Your task to perform on an android device: Go to Google maps Image 0: 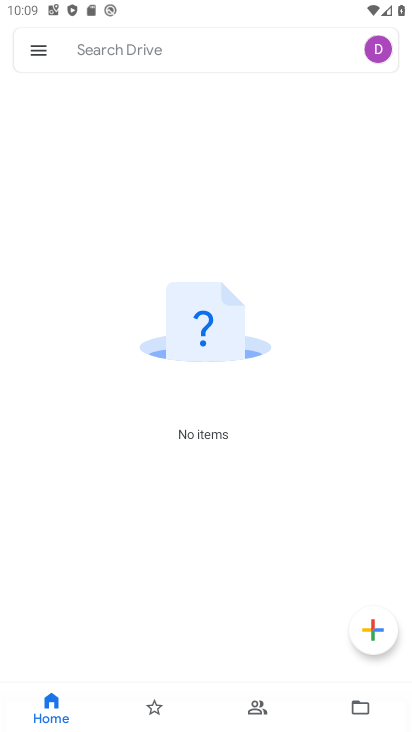
Step 0: press home button
Your task to perform on an android device: Go to Google maps Image 1: 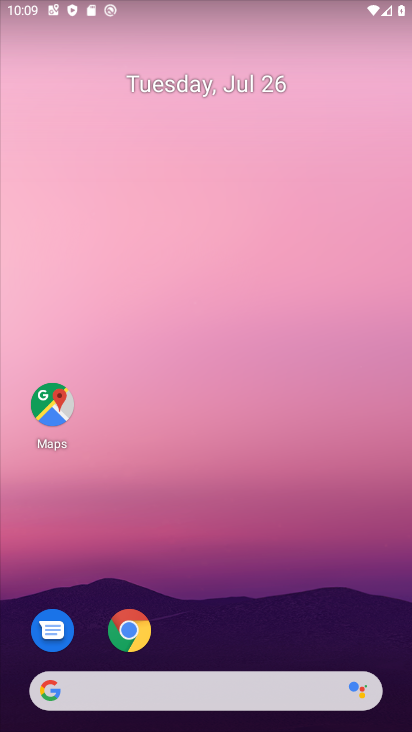
Step 1: click (50, 399)
Your task to perform on an android device: Go to Google maps Image 2: 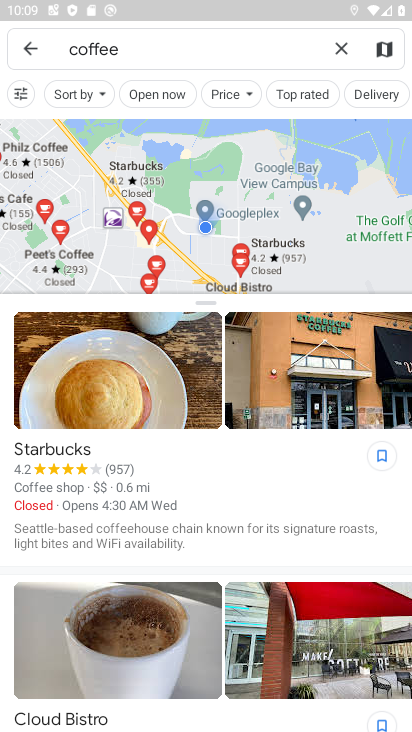
Step 2: click (334, 46)
Your task to perform on an android device: Go to Google maps Image 3: 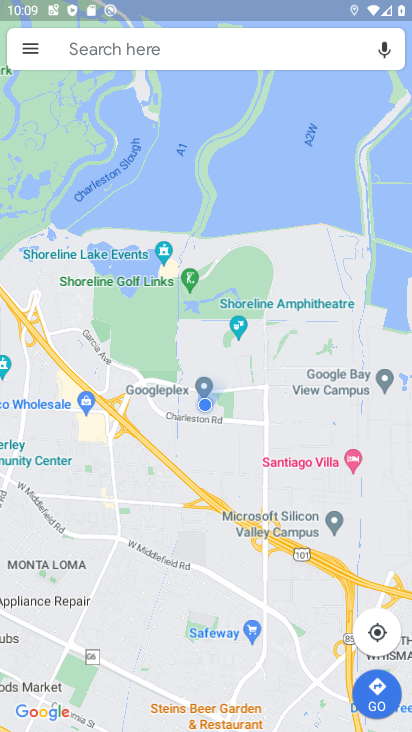
Step 3: task complete